Your task to perform on an android device: create a new album in the google photos Image 0: 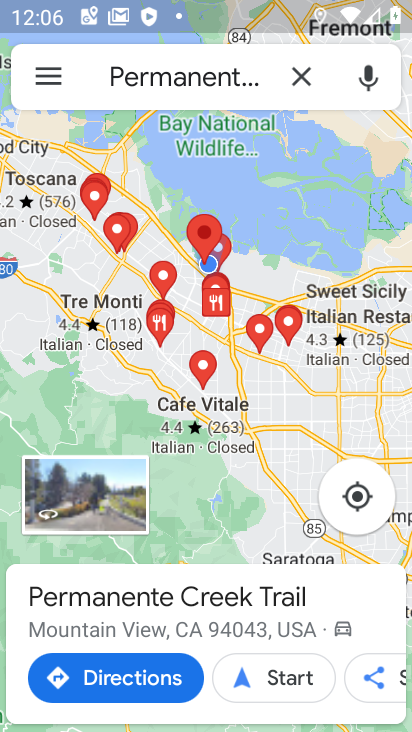
Step 0: press home button
Your task to perform on an android device: create a new album in the google photos Image 1: 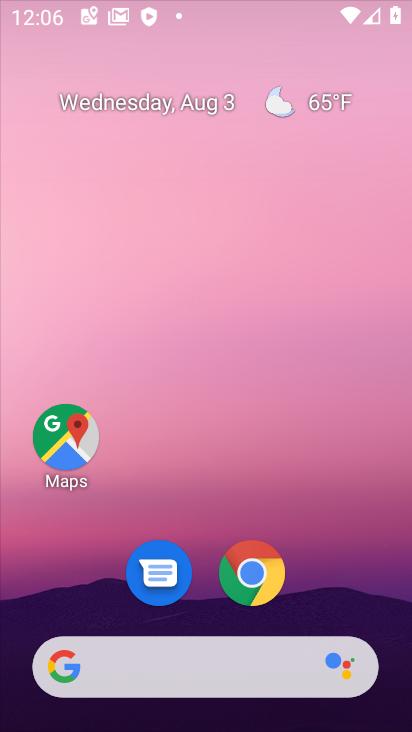
Step 1: drag from (221, 552) to (266, 125)
Your task to perform on an android device: create a new album in the google photos Image 2: 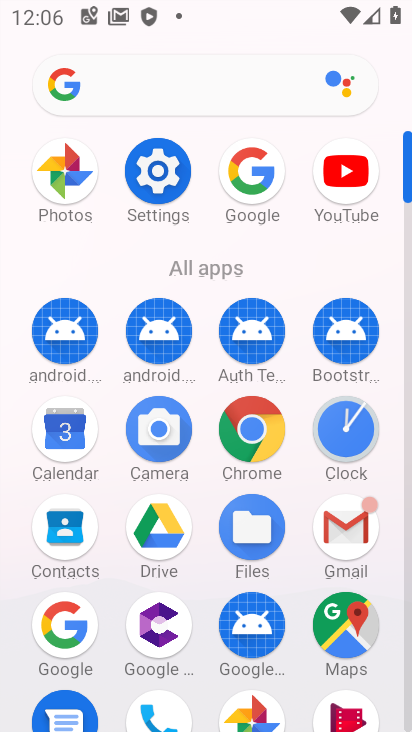
Step 2: click (244, 698)
Your task to perform on an android device: create a new album in the google photos Image 3: 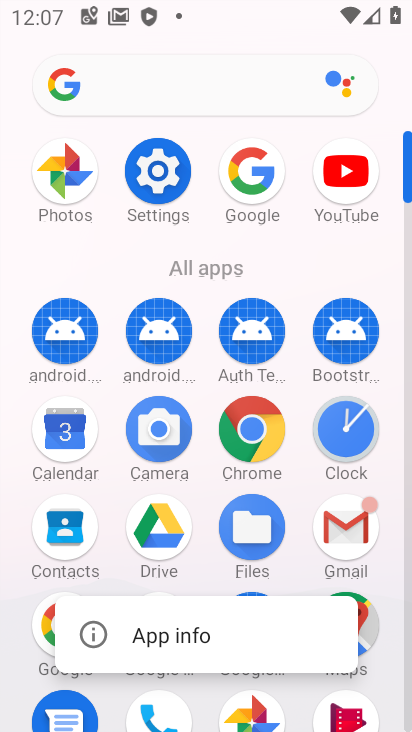
Step 3: click (267, 621)
Your task to perform on an android device: create a new album in the google photos Image 4: 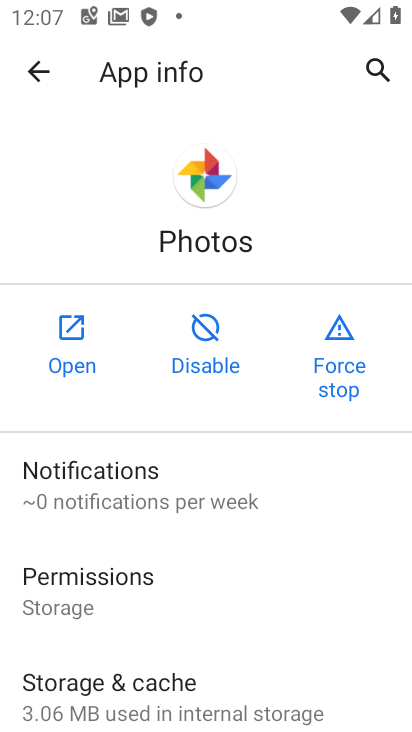
Step 4: click (67, 354)
Your task to perform on an android device: create a new album in the google photos Image 5: 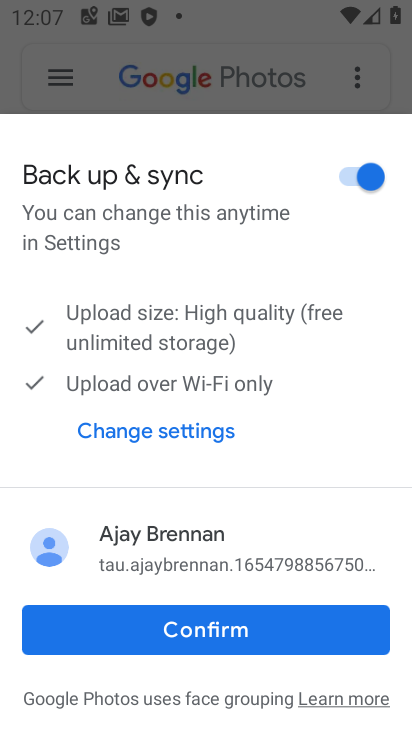
Step 5: click (176, 637)
Your task to perform on an android device: create a new album in the google photos Image 6: 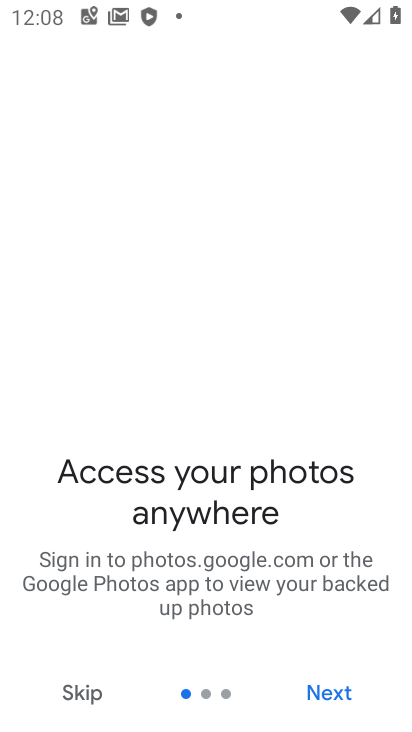
Step 6: click (69, 691)
Your task to perform on an android device: create a new album in the google photos Image 7: 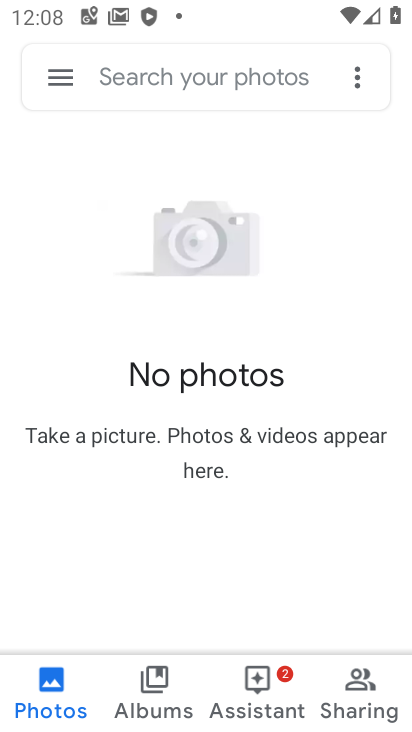
Step 7: drag from (266, 553) to (262, 383)
Your task to perform on an android device: create a new album in the google photos Image 8: 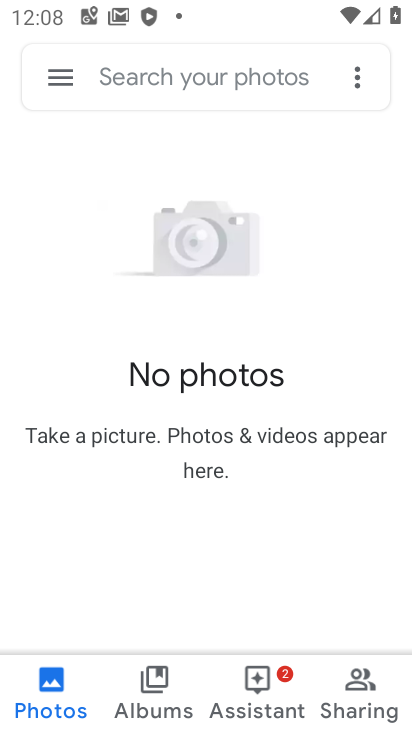
Step 8: click (49, 75)
Your task to perform on an android device: create a new album in the google photos Image 9: 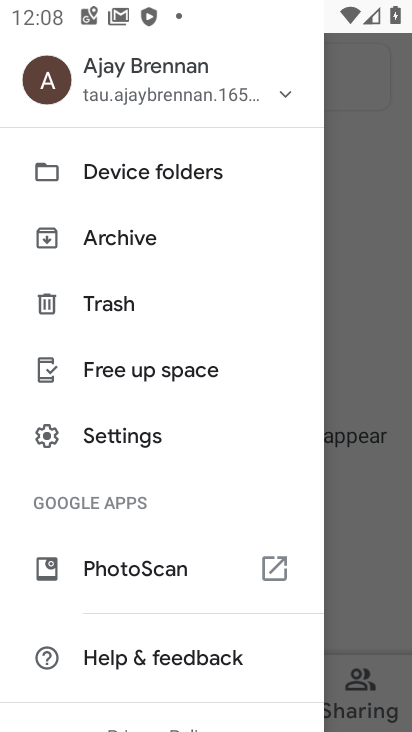
Step 9: click (374, 276)
Your task to perform on an android device: create a new album in the google photos Image 10: 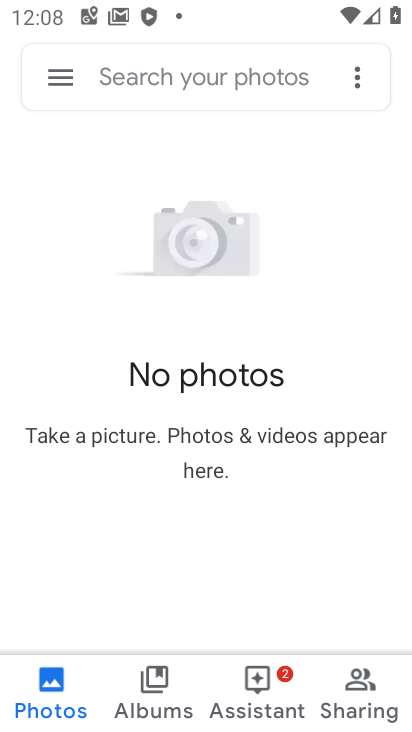
Step 10: click (141, 684)
Your task to perform on an android device: create a new album in the google photos Image 11: 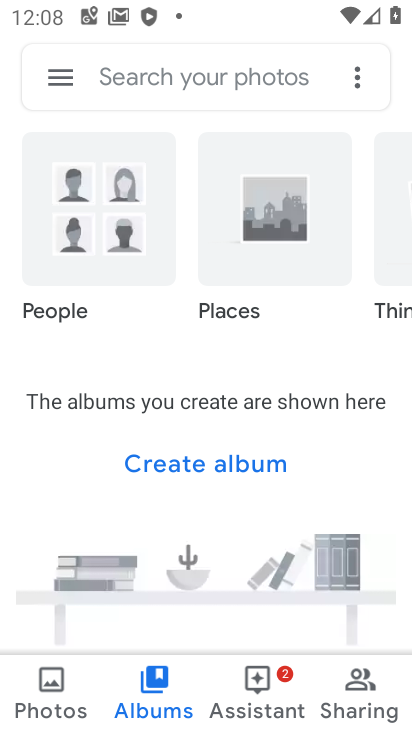
Step 11: click (192, 471)
Your task to perform on an android device: create a new album in the google photos Image 12: 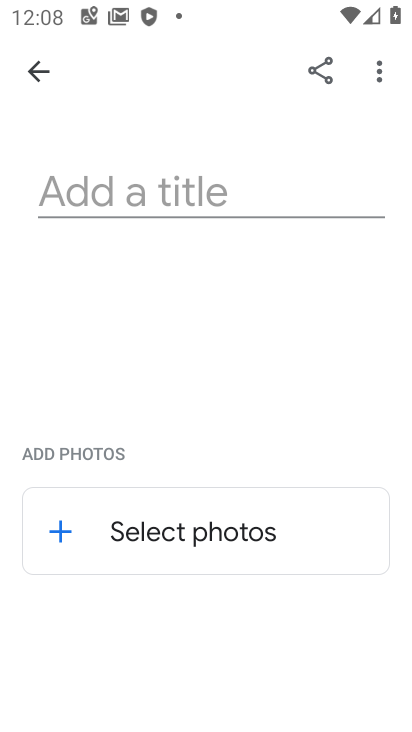
Step 12: click (170, 202)
Your task to perform on an android device: create a new album in the google photos Image 13: 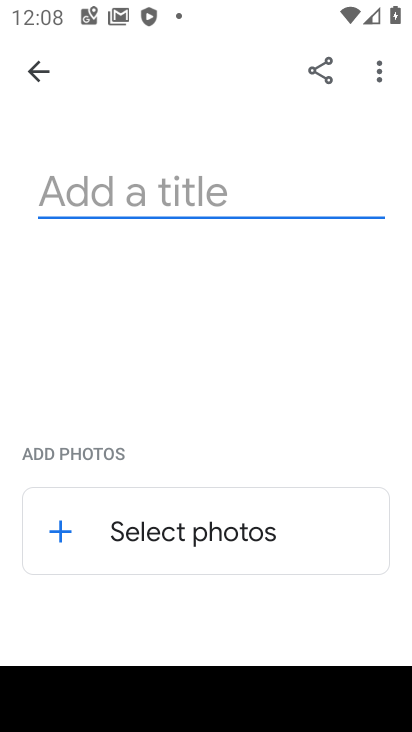
Step 13: type "majsla"
Your task to perform on an android device: create a new album in the google photos Image 14: 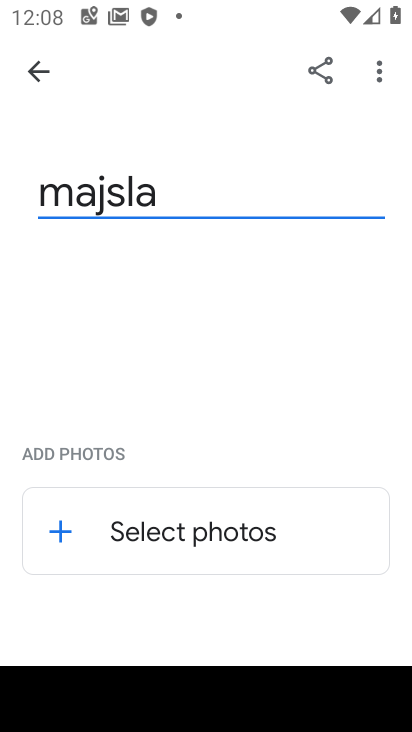
Step 14: click (60, 529)
Your task to perform on an android device: create a new album in the google photos Image 15: 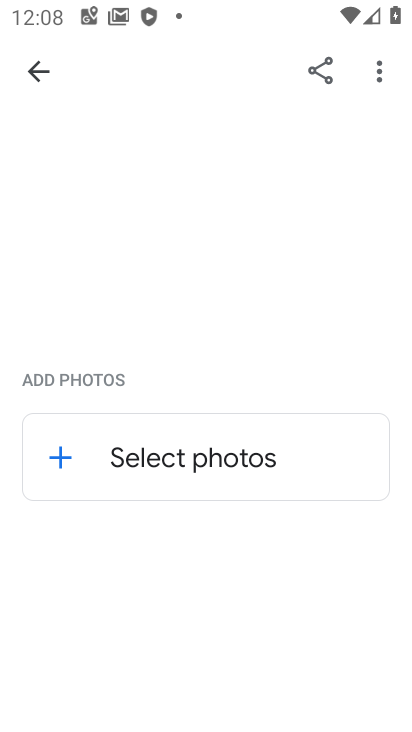
Step 15: click (60, 454)
Your task to perform on an android device: create a new album in the google photos Image 16: 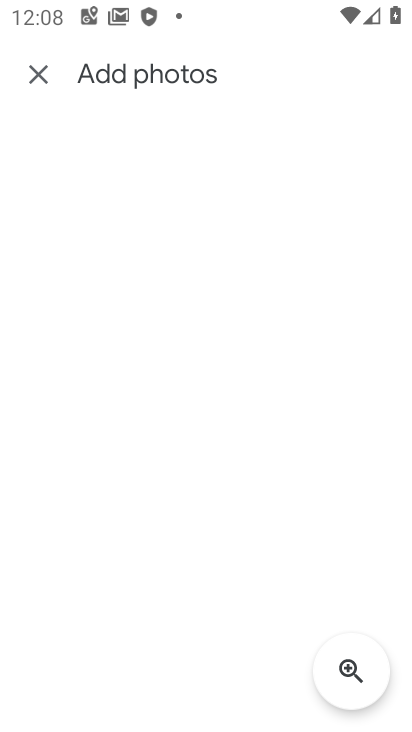
Step 16: click (209, 243)
Your task to perform on an android device: create a new album in the google photos Image 17: 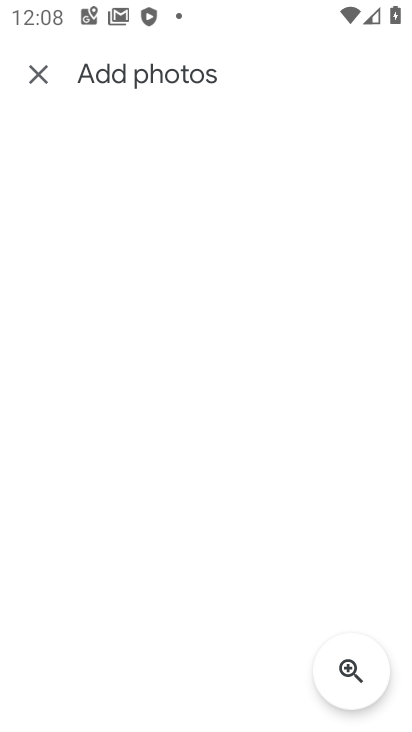
Step 17: click (208, 243)
Your task to perform on an android device: create a new album in the google photos Image 18: 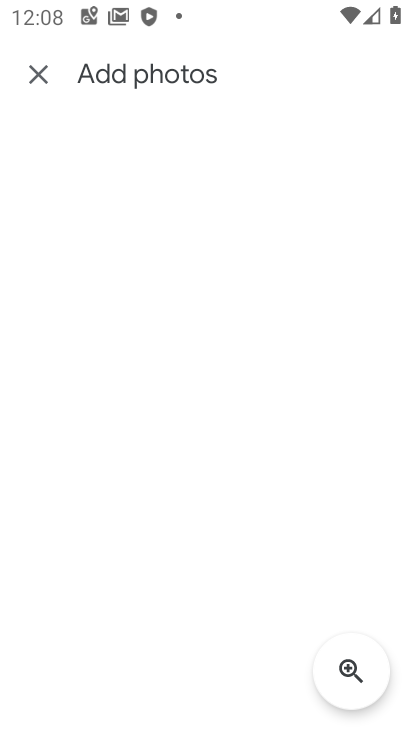
Step 18: click (155, 341)
Your task to perform on an android device: create a new album in the google photos Image 19: 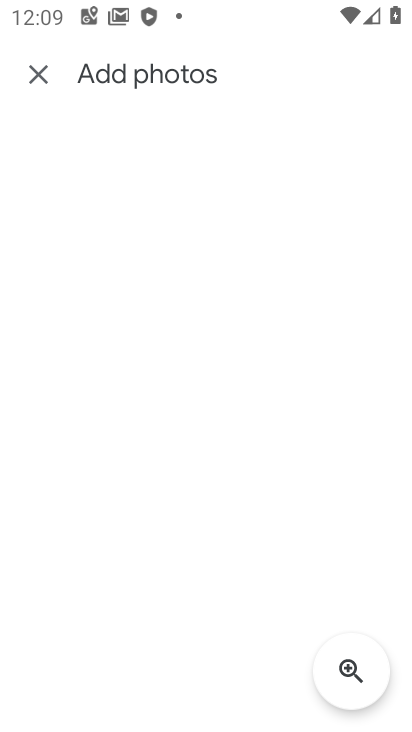
Step 19: task complete